Your task to perform on an android device: find snoozed emails in the gmail app Image 0: 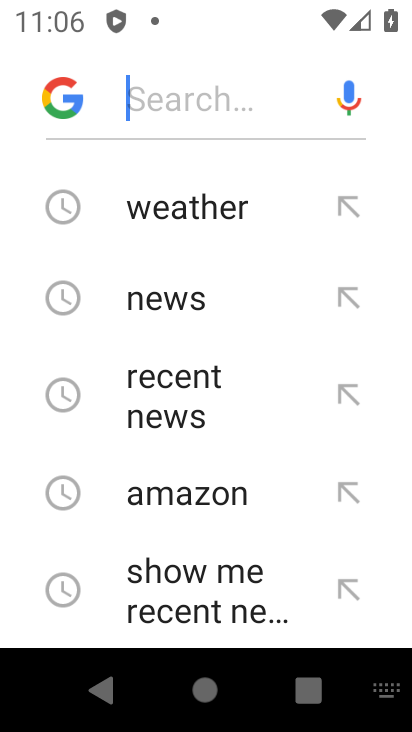
Step 0: press home button
Your task to perform on an android device: find snoozed emails in the gmail app Image 1: 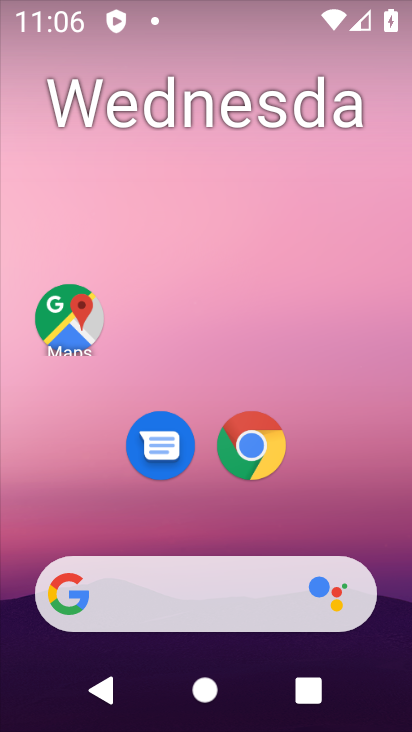
Step 1: drag from (347, 489) to (341, 107)
Your task to perform on an android device: find snoozed emails in the gmail app Image 2: 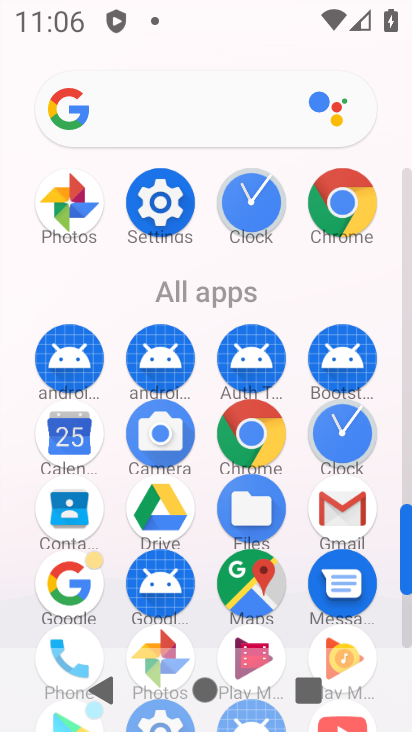
Step 2: click (348, 515)
Your task to perform on an android device: find snoozed emails in the gmail app Image 3: 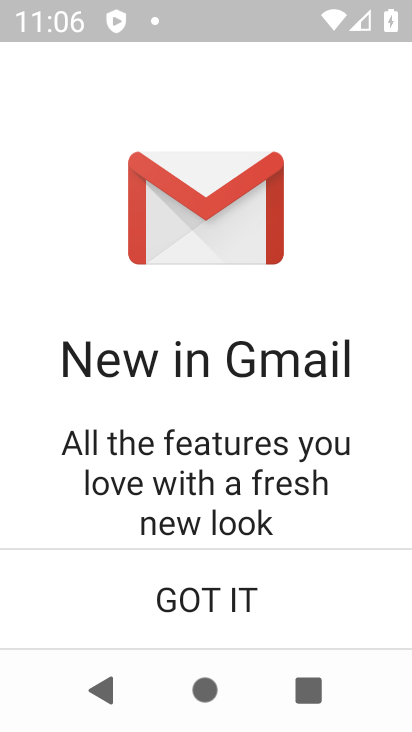
Step 3: click (267, 605)
Your task to perform on an android device: find snoozed emails in the gmail app Image 4: 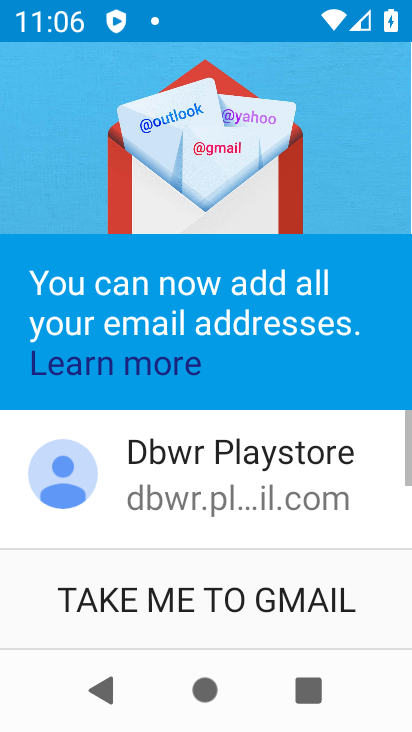
Step 4: click (270, 580)
Your task to perform on an android device: find snoozed emails in the gmail app Image 5: 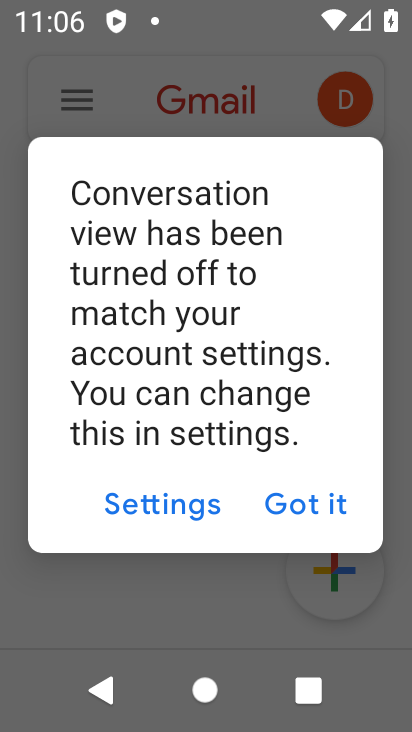
Step 5: click (316, 497)
Your task to perform on an android device: find snoozed emails in the gmail app Image 6: 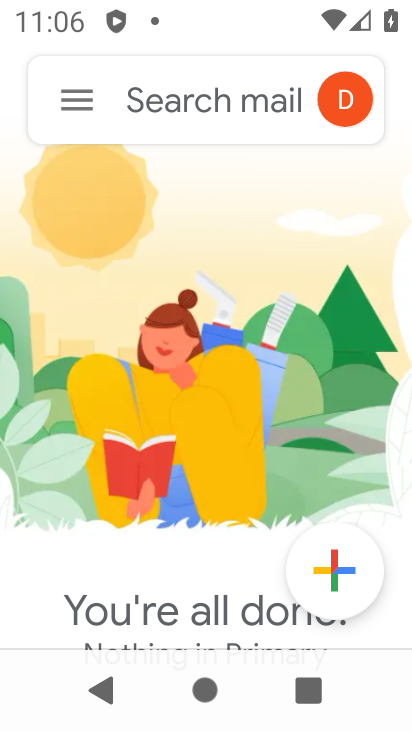
Step 6: click (55, 95)
Your task to perform on an android device: find snoozed emails in the gmail app Image 7: 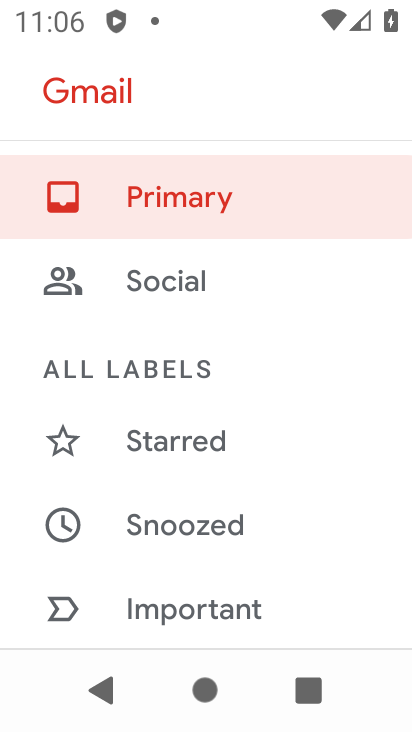
Step 7: drag from (254, 514) to (250, 199)
Your task to perform on an android device: find snoozed emails in the gmail app Image 8: 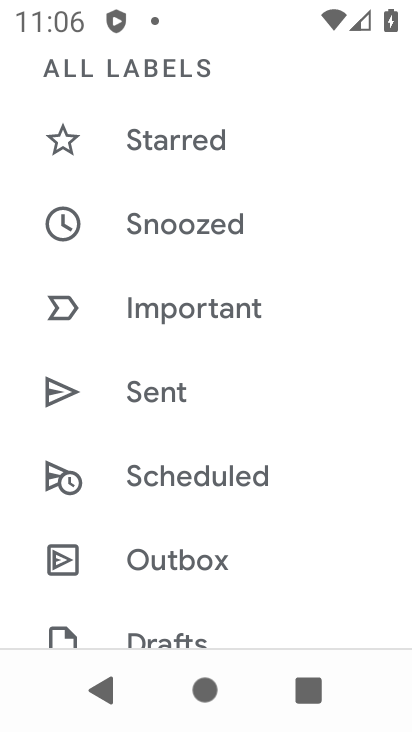
Step 8: click (227, 191)
Your task to perform on an android device: find snoozed emails in the gmail app Image 9: 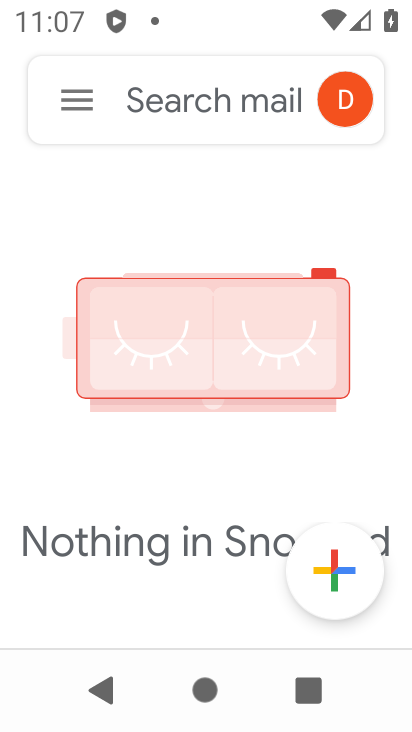
Step 9: task complete